Your task to perform on an android device: Open wifi settings Image 0: 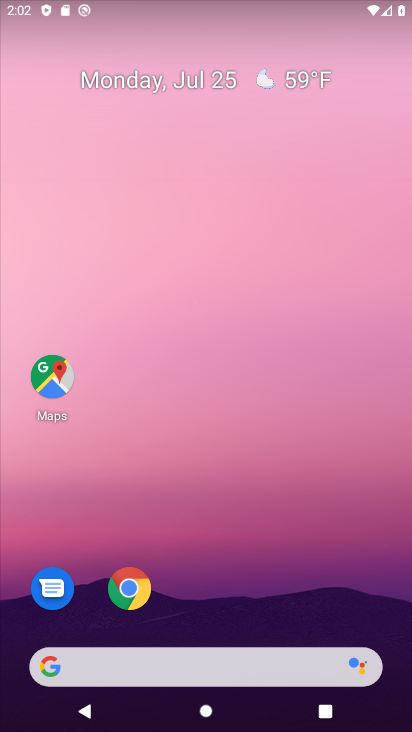
Step 0: drag from (170, 10) to (264, 576)
Your task to perform on an android device: Open wifi settings Image 1: 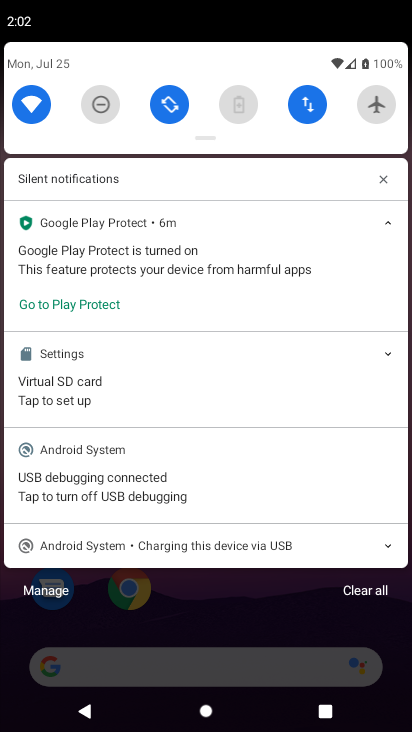
Step 1: click (33, 118)
Your task to perform on an android device: Open wifi settings Image 2: 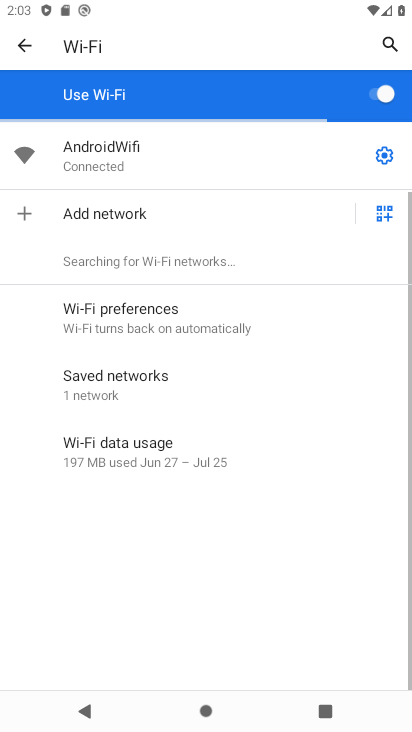
Step 2: task complete